Your task to perform on an android device: turn on showing notifications on the lock screen Image 0: 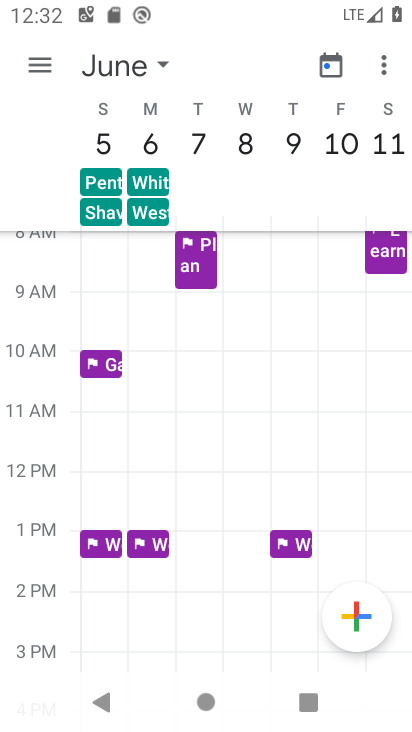
Step 0: press home button
Your task to perform on an android device: turn on showing notifications on the lock screen Image 1: 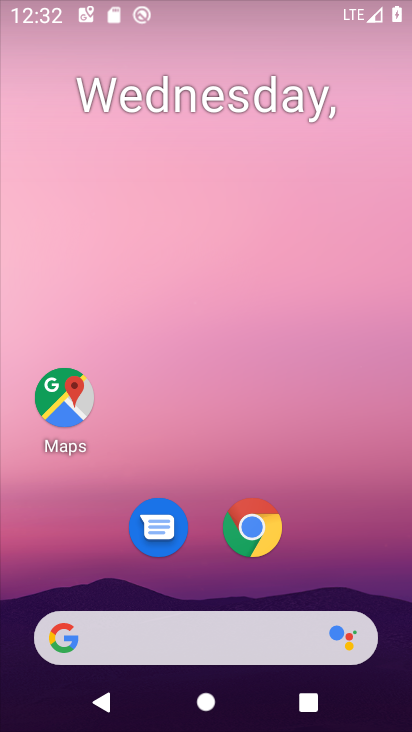
Step 1: drag from (133, 693) to (99, 135)
Your task to perform on an android device: turn on showing notifications on the lock screen Image 2: 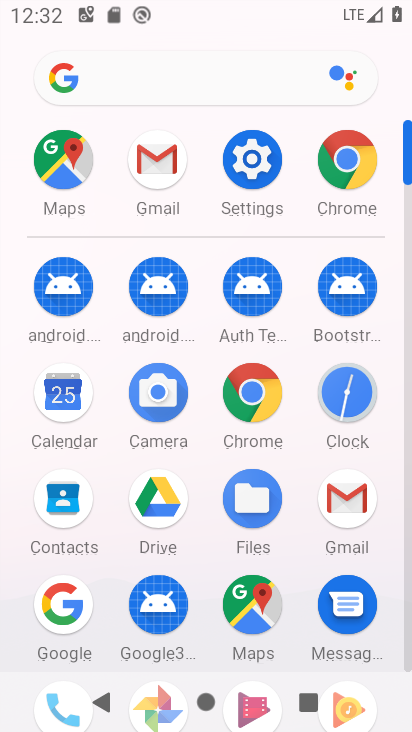
Step 2: click (244, 171)
Your task to perform on an android device: turn on showing notifications on the lock screen Image 3: 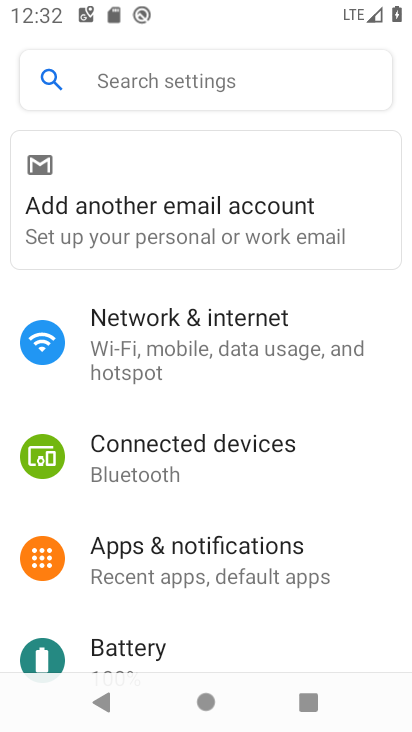
Step 3: click (281, 552)
Your task to perform on an android device: turn on showing notifications on the lock screen Image 4: 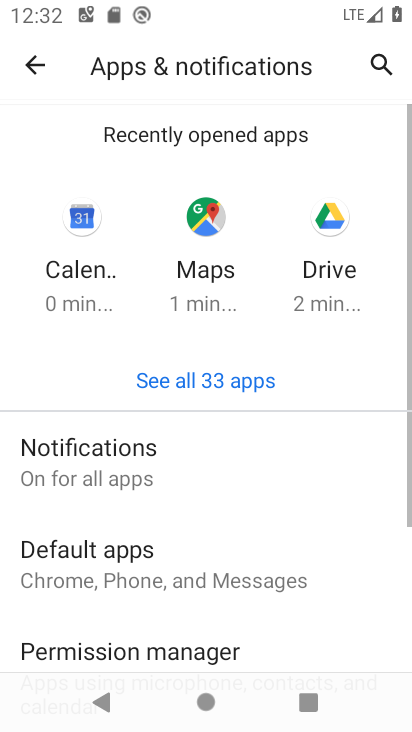
Step 4: drag from (160, 603) to (173, 132)
Your task to perform on an android device: turn on showing notifications on the lock screen Image 5: 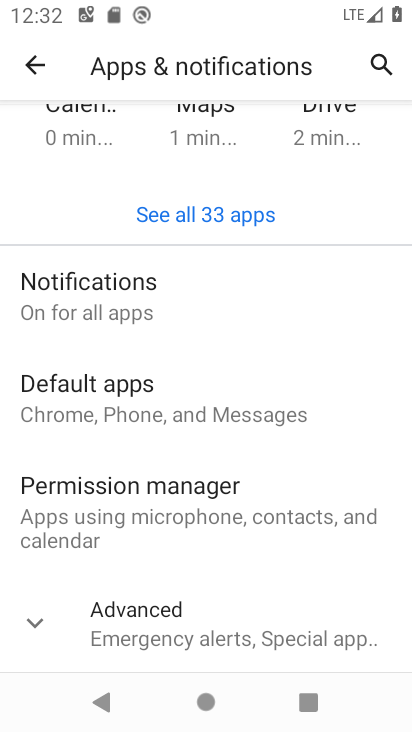
Step 5: click (178, 315)
Your task to perform on an android device: turn on showing notifications on the lock screen Image 6: 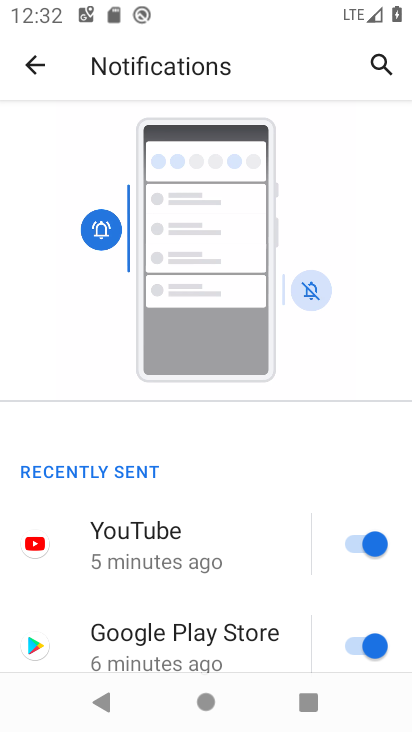
Step 6: drag from (162, 480) to (172, 9)
Your task to perform on an android device: turn on showing notifications on the lock screen Image 7: 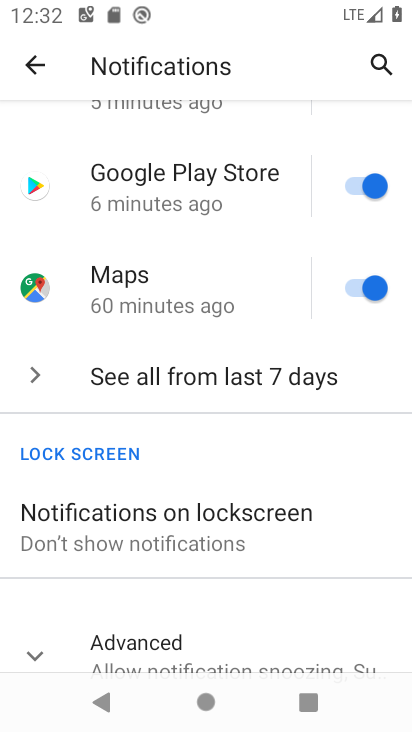
Step 7: click (202, 535)
Your task to perform on an android device: turn on showing notifications on the lock screen Image 8: 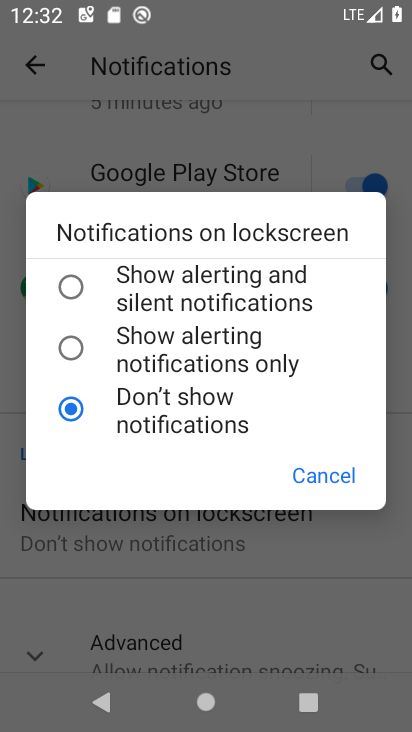
Step 8: click (68, 278)
Your task to perform on an android device: turn on showing notifications on the lock screen Image 9: 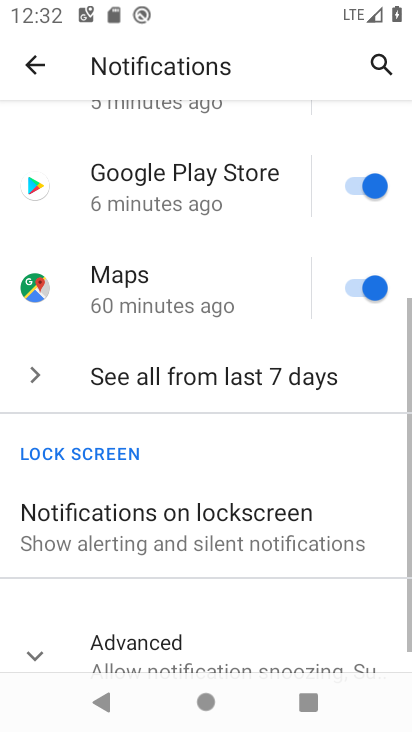
Step 9: task complete